Your task to perform on an android device: set an alarm Image 0: 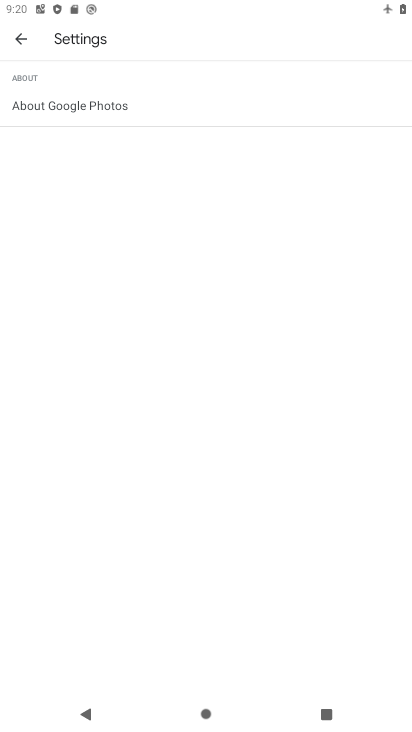
Step 0: press home button
Your task to perform on an android device: set an alarm Image 1: 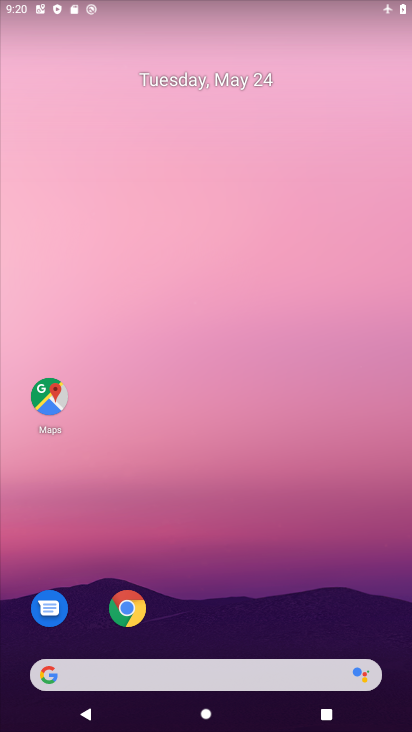
Step 1: drag from (204, 600) to (282, 216)
Your task to perform on an android device: set an alarm Image 2: 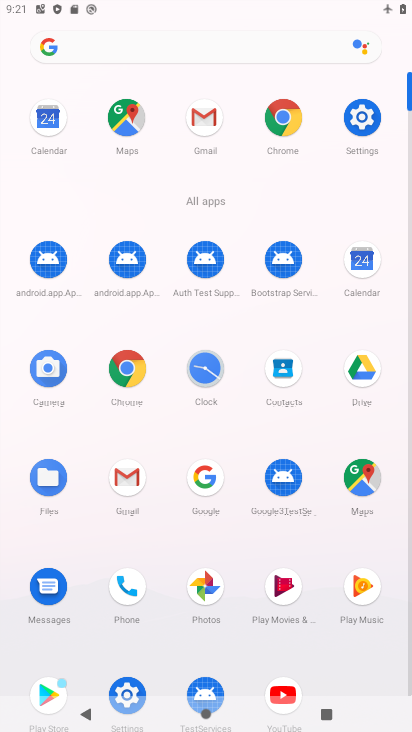
Step 2: click (208, 378)
Your task to perform on an android device: set an alarm Image 3: 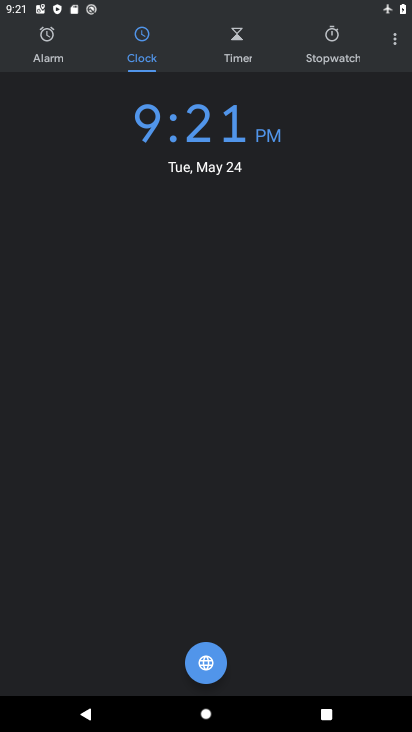
Step 3: click (45, 37)
Your task to perform on an android device: set an alarm Image 4: 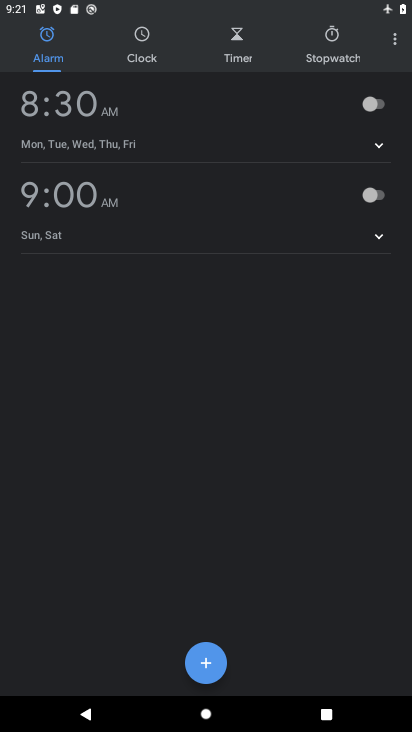
Step 4: click (105, 203)
Your task to perform on an android device: set an alarm Image 5: 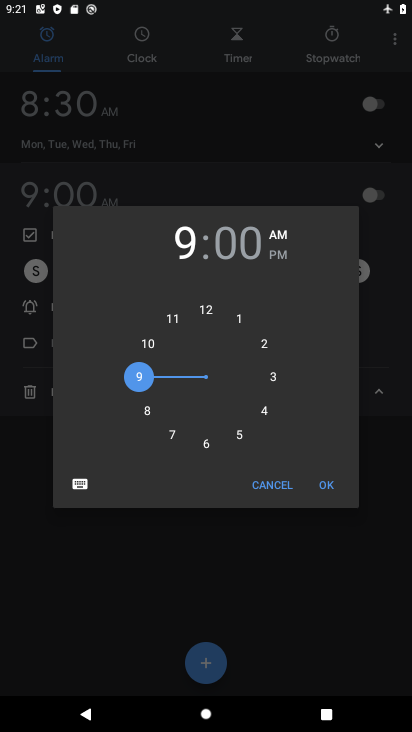
Step 5: click (234, 317)
Your task to perform on an android device: set an alarm Image 6: 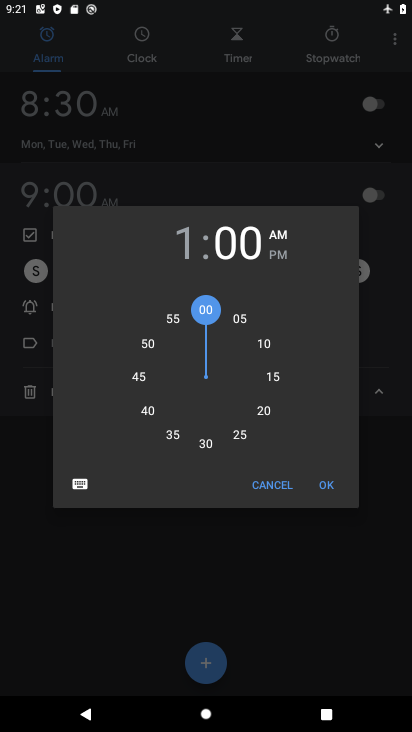
Step 6: click (264, 380)
Your task to perform on an android device: set an alarm Image 7: 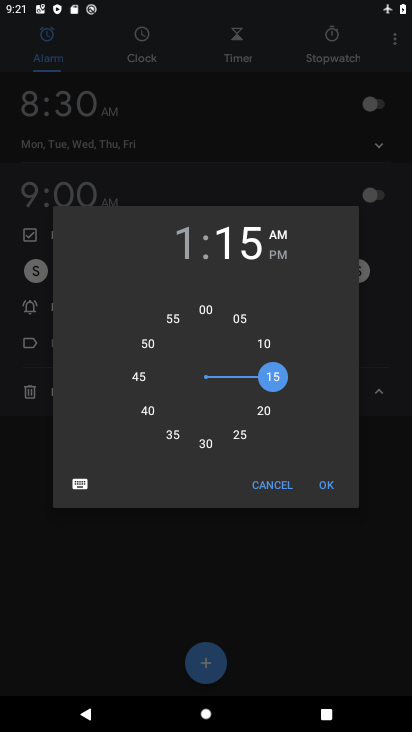
Step 7: click (331, 488)
Your task to perform on an android device: set an alarm Image 8: 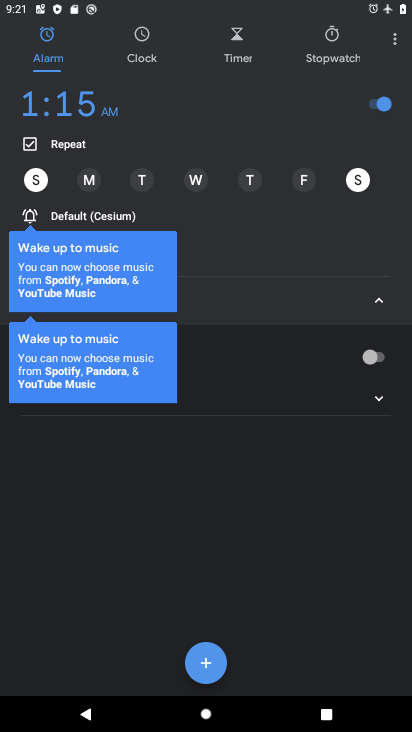
Step 8: task complete